Your task to perform on an android device: change timer sound Image 0: 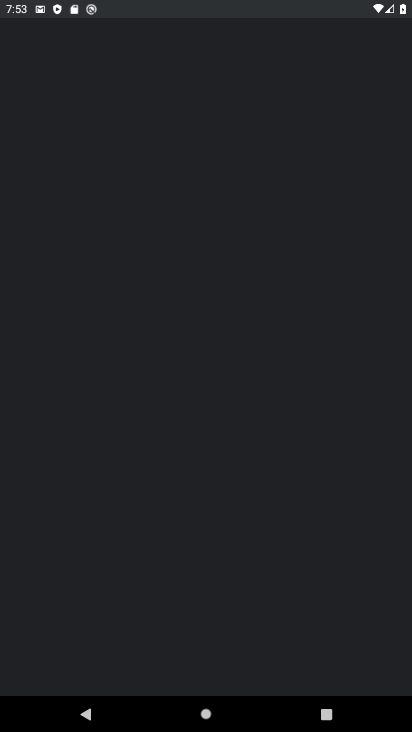
Step 0: drag from (233, 729) to (209, 243)
Your task to perform on an android device: change timer sound Image 1: 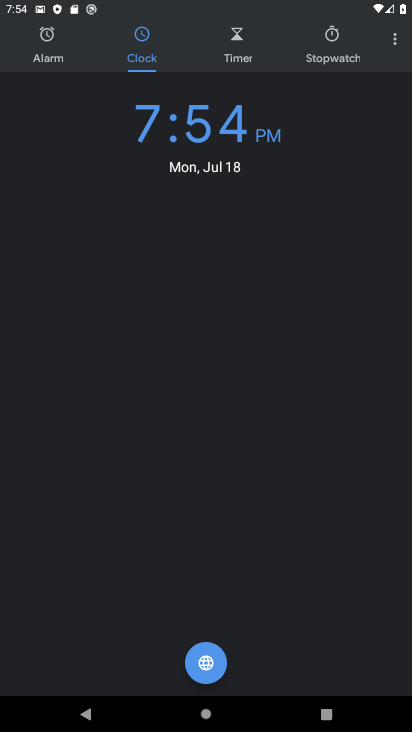
Step 1: click (395, 45)
Your task to perform on an android device: change timer sound Image 2: 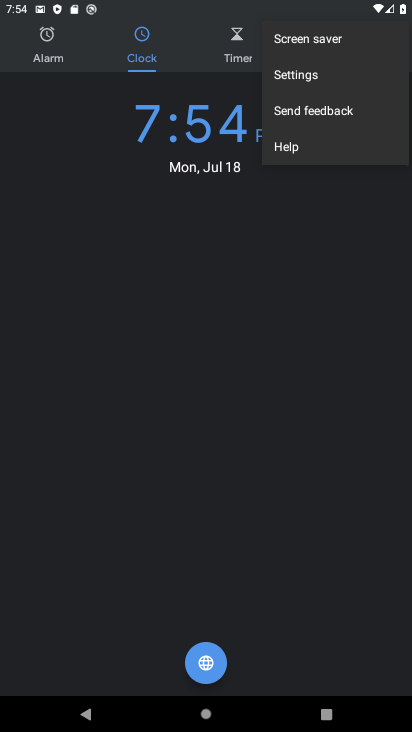
Step 2: click (305, 80)
Your task to perform on an android device: change timer sound Image 3: 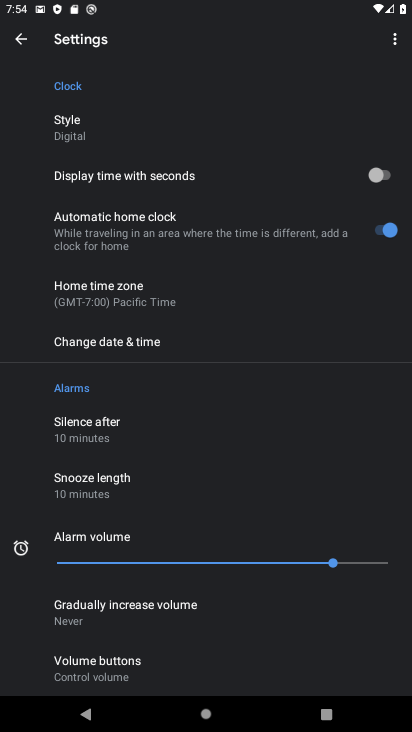
Step 3: drag from (131, 657) to (127, 353)
Your task to perform on an android device: change timer sound Image 4: 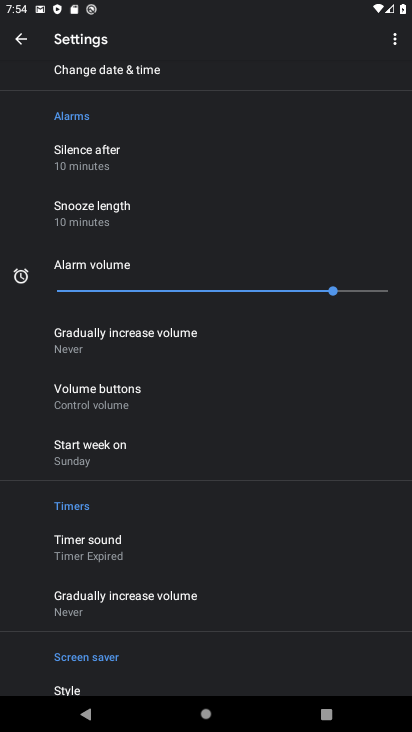
Step 4: click (92, 547)
Your task to perform on an android device: change timer sound Image 5: 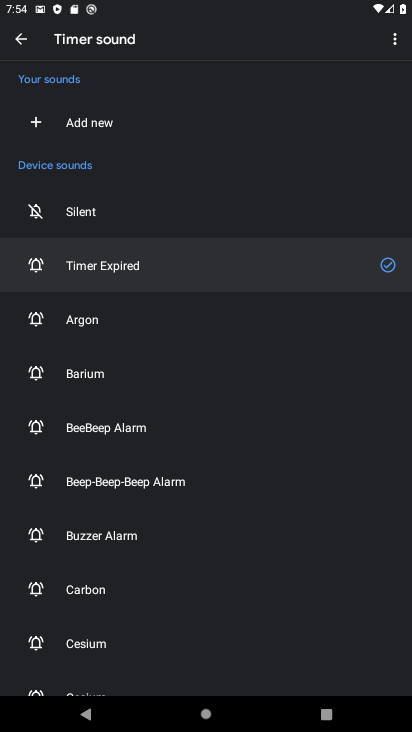
Step 5: click (81, 581)
Your task to perform on an android device: change timer sound Image 6: 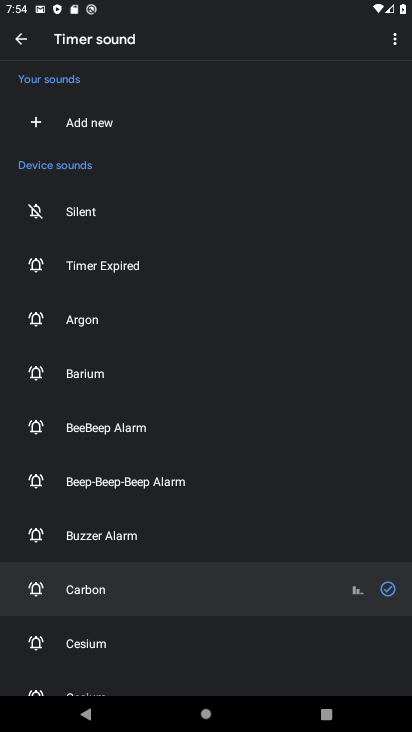
Step 6: task complete